Your task to perform on an android device: delete a single message in the gmail app Image 0: 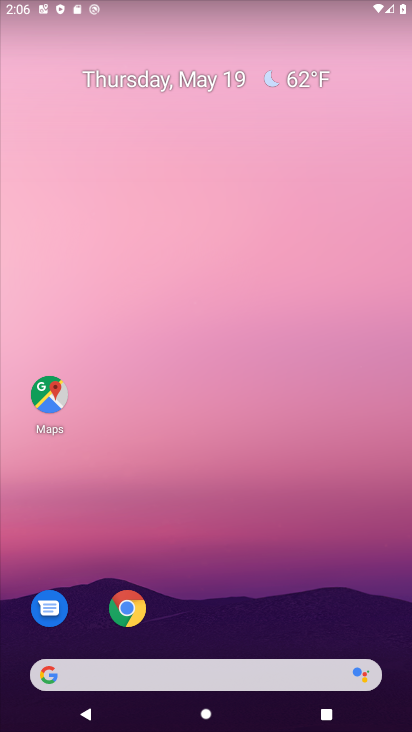
Step 0: drag from (360, 638) to (343, 313)
Your task to perform on an android device: delete a single message in the gmail app Image 1: 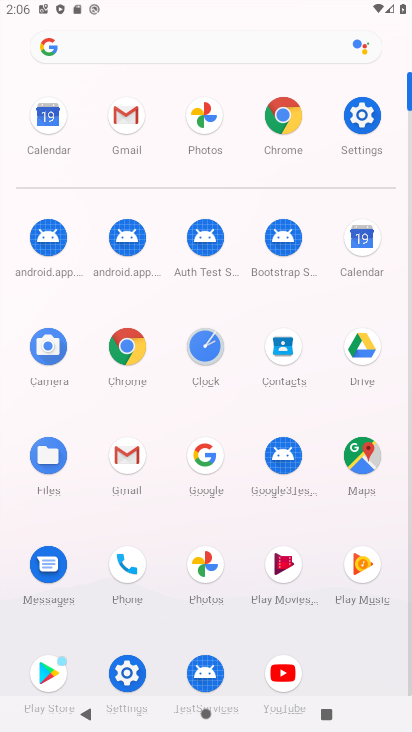
Step 1: click (97, 473)
Your task to perform on an android device: delete a single message in the gmail app Image 2: 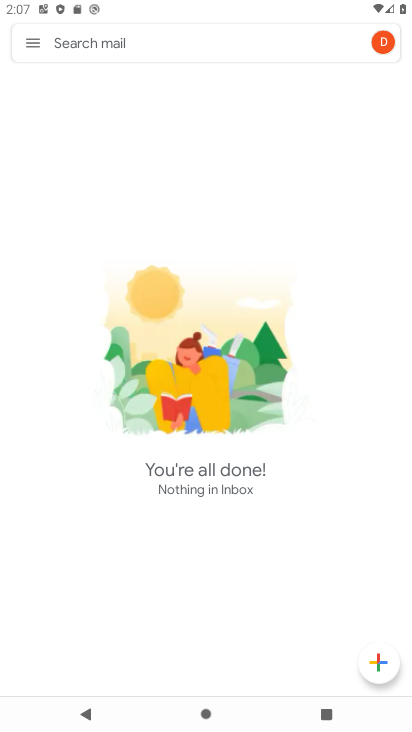
Step 2: click (24, 47)
Your task to perform on an android device: delete a single message in the gmail app Image 3: 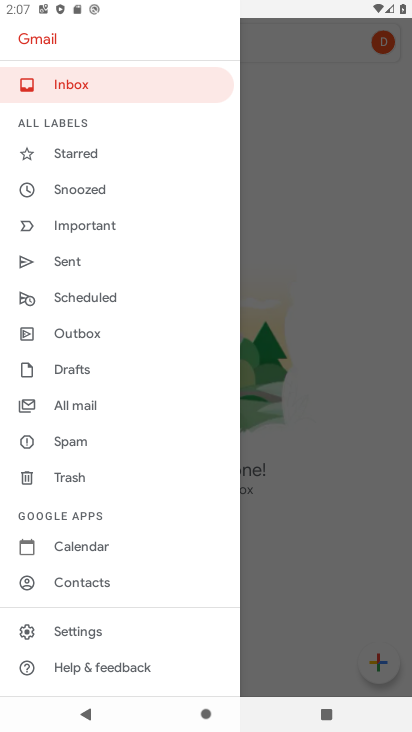
Step 3: click (144, 615)
Your task to perform on an android device: delete a single message in the gmail app Image 4: 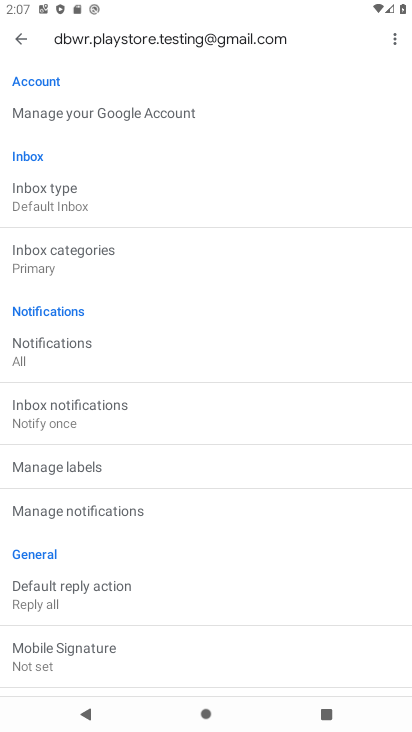
Step 4: click (23, 46)
Your task to perform on an android device: delete a single message in the gmail app Image 5: 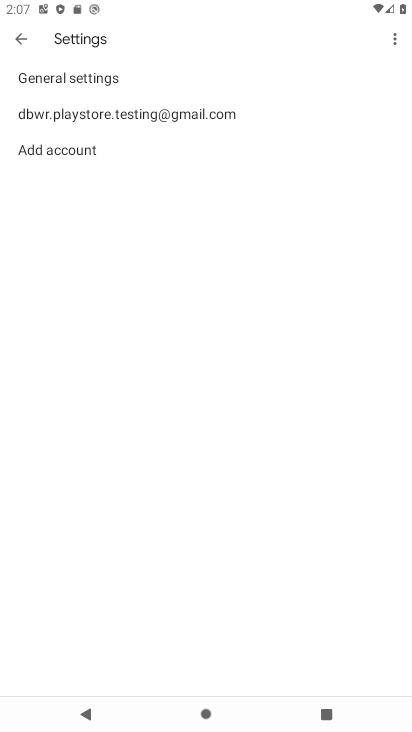
Step 5: click (23, 46)
Your task to perform on an android device: delete a single message in the gmail app Image 6: 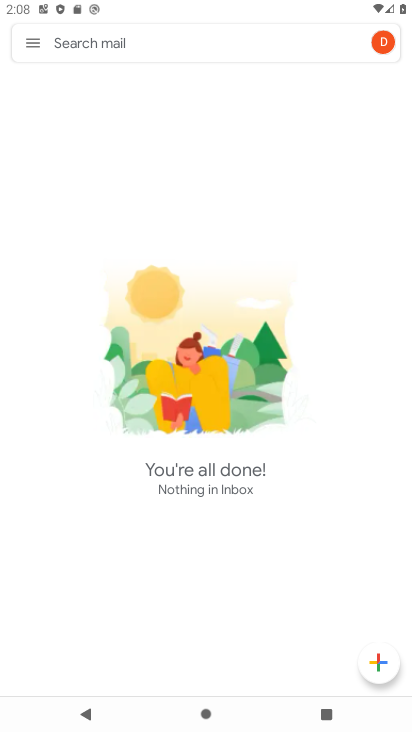
Step 6: click (23, 46)
Your task to perform on an android device: delete a single message in the gmail app Image 7: 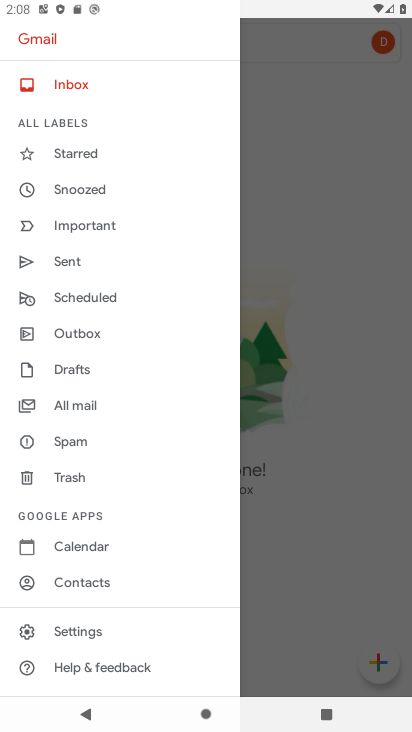
Step 7: task complete